Your task to perform on an android device: turn smart compose on in the gmail app Image 0: 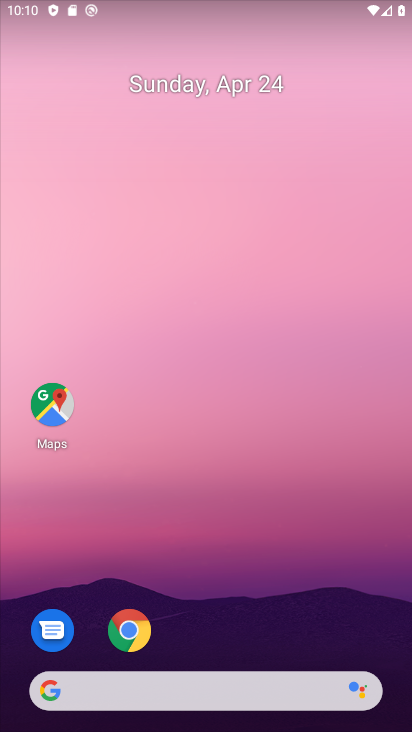
Step 0: drag from (210, 569) to (210, 191)
Your task to perform on an android device: turn smart compose on in the gmail app Image 1: 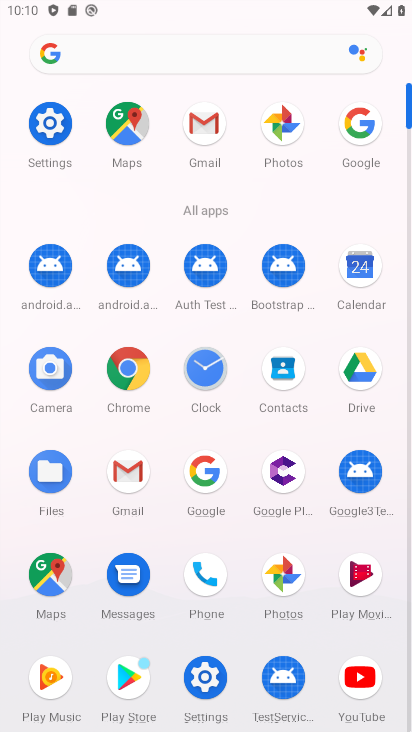
Step 1: click (210, 137)
Your task to perform on an android device: turn smart compose on in the gmail app Image 2: 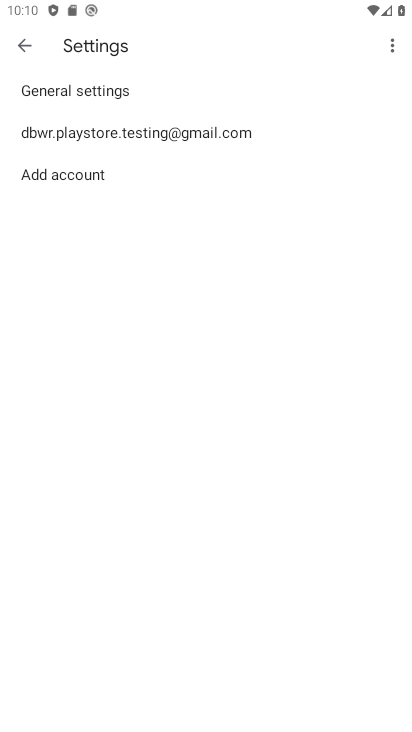
Step 2: click (210, 137)
Your task to perform on an android device: turn smart compose on in the gmail app Image 3: 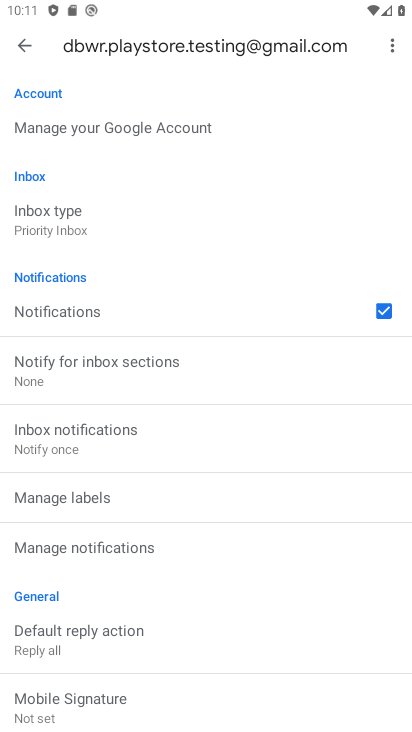
Step 3: task complete